Your task to perform on an android device: Open sound settings Image 0: 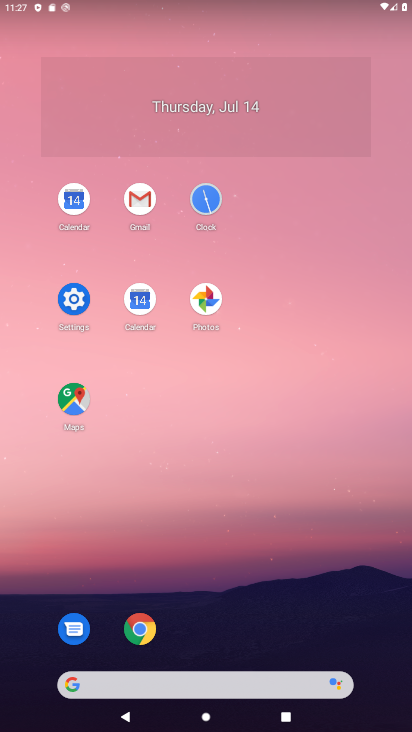
Step 0: click (83, 310)
Your task to perform on an android device: Open sound settings Image 1: 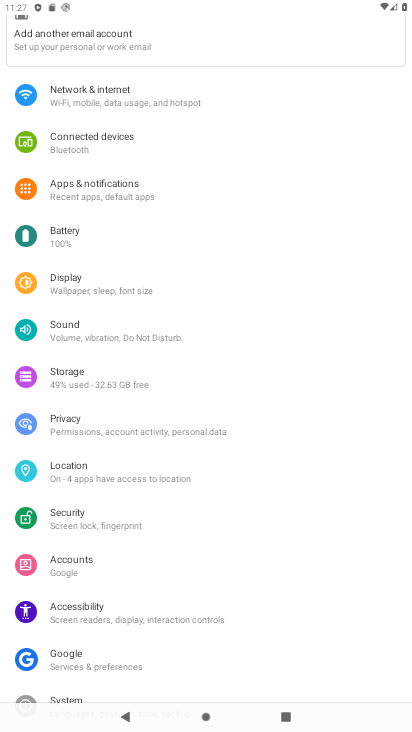
Step 1: click (142, 326)
Your task to perform on an android device: Open sound settings Image 2: 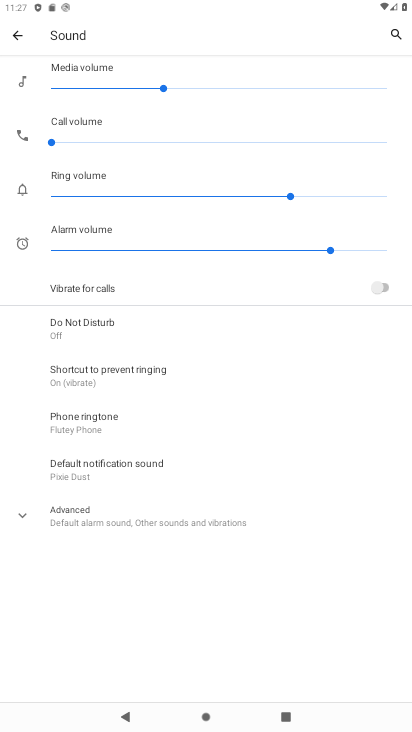
Step 2: task complete